Your task to perform on an android device: Show me popular videos on Youtube Image 0: 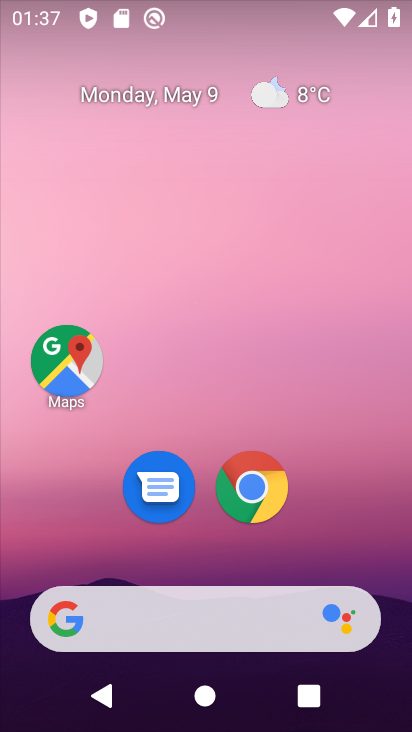
Step 0: drag from (351, 520) to (285, 62)
Your task to perform on an android device: Show me popular videos on Youtube Image 1: 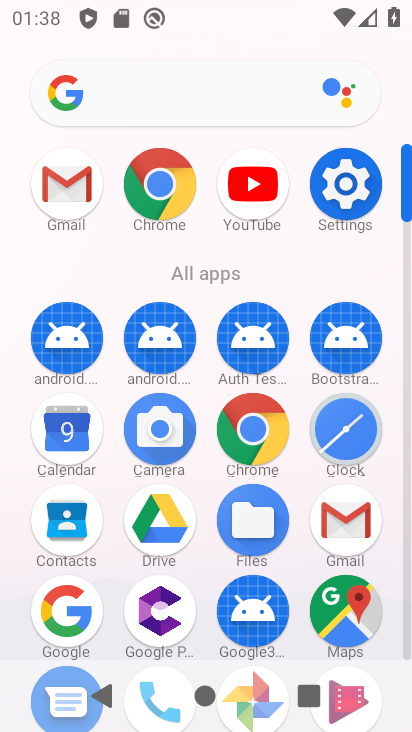
Step 1: click (252, 188)
Your task to perform on an android device: Show me popular videos on Youtube Image 2: 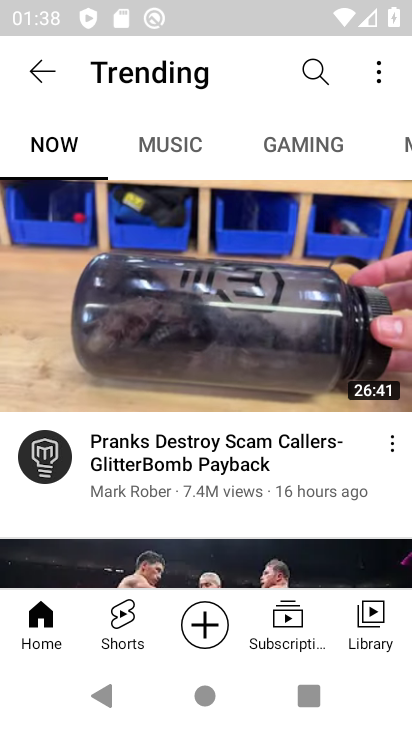
Step 2: task complete